Your task to perform on an android device: Open display settings Image 0: 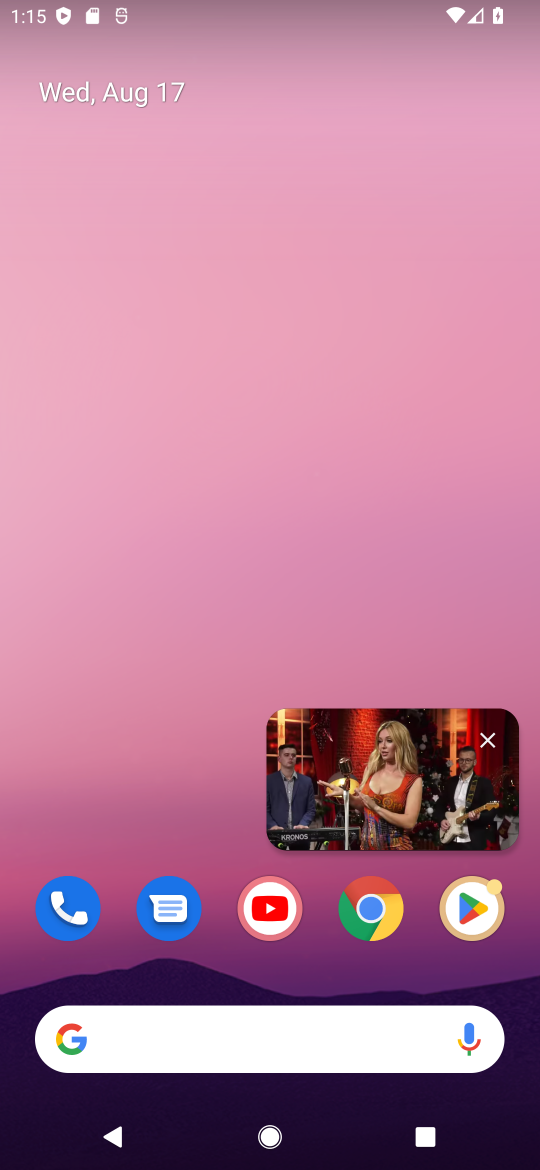
Step 0: click (483, 756)
Your task to perform on an android device: Open display settings Image 1: 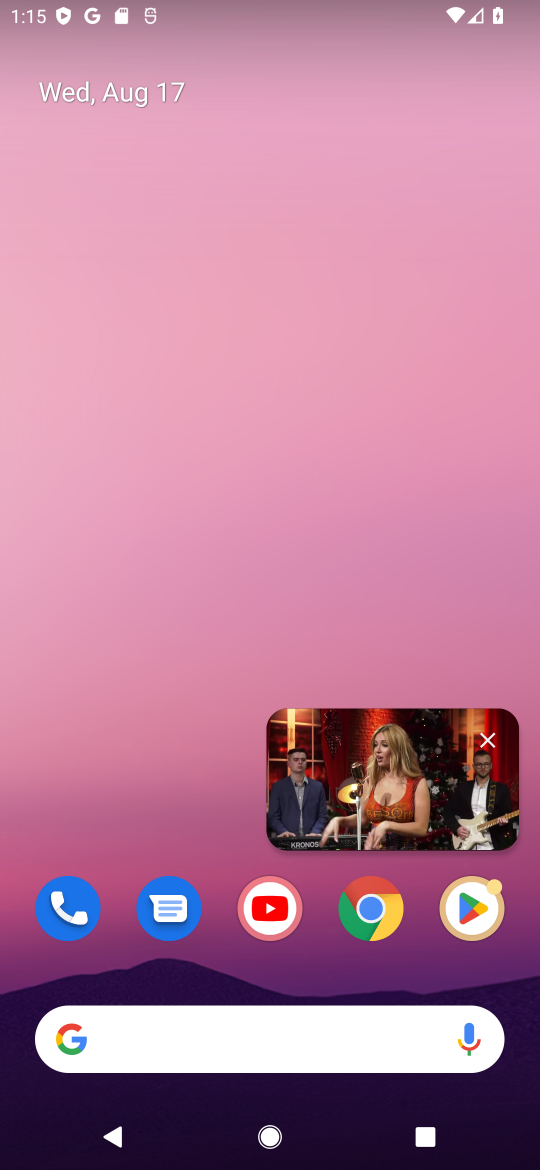
Step 1: click (483, 751)
Your task to perform on an android device: Open display settings Image 2: 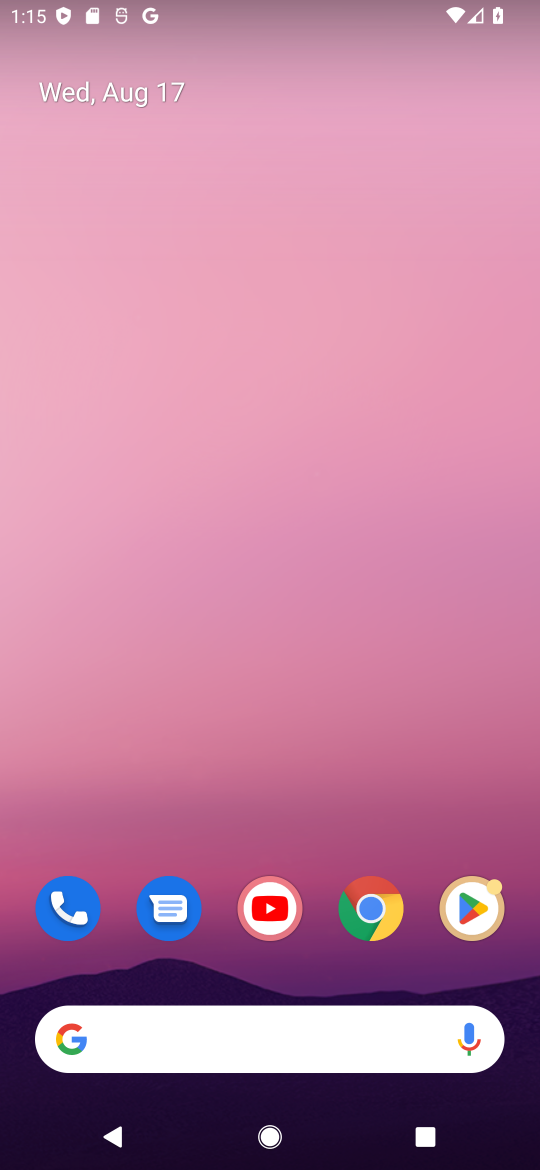
Step 2: drag from (315, 836) to (333, 125)
Your task to perform on an android device: Open display settings Image 3: 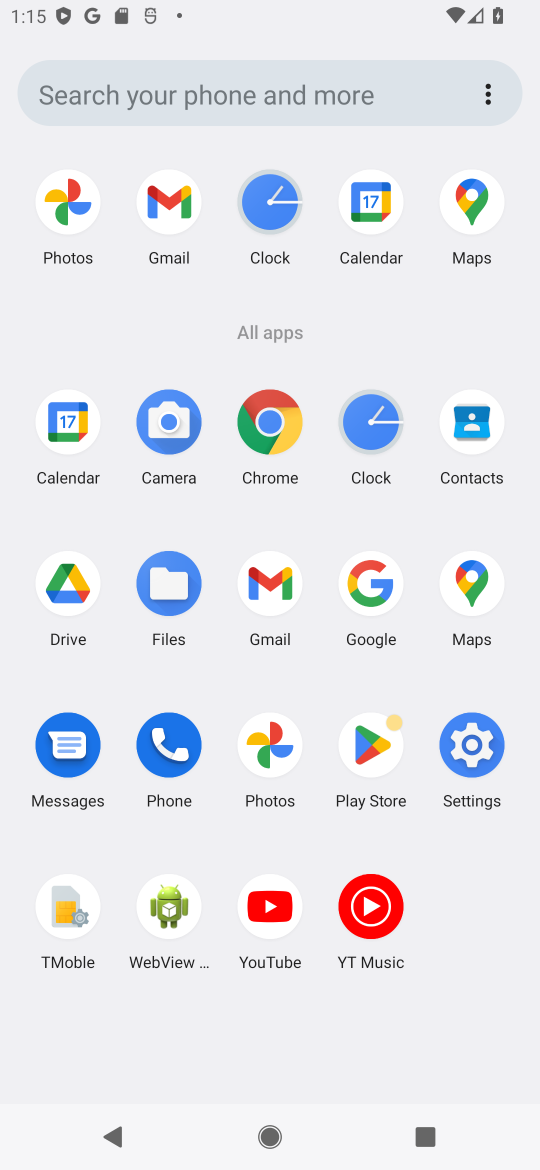
Step 3: click (470, 746)
Your task to perform on an android device: Open display settings Image 4: 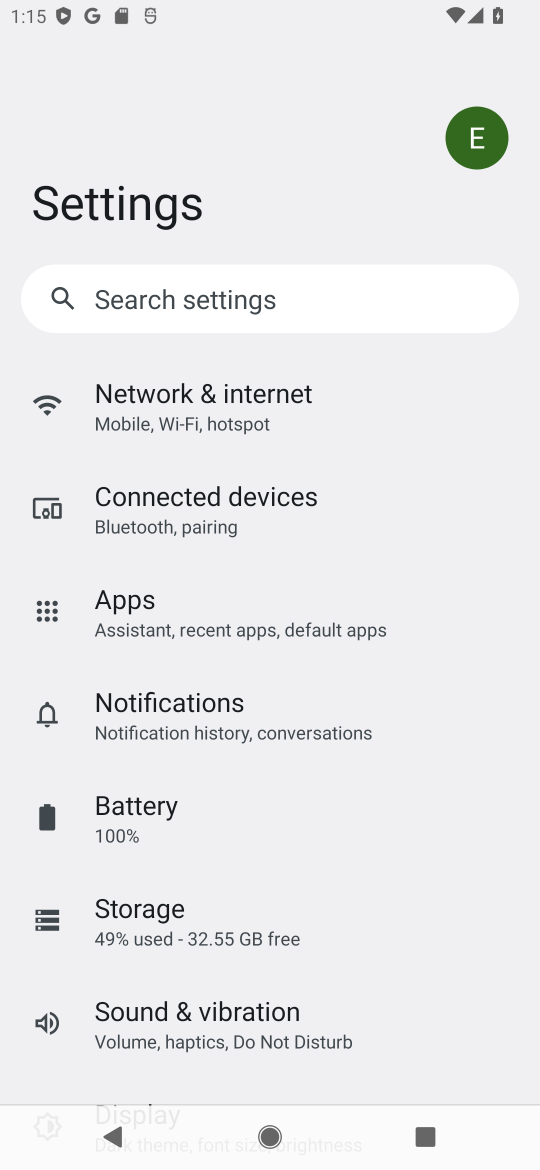
Step 4: drag from (412, 975) to (488, 137)
Your task to perform on an android device: Open display settings Image 5: 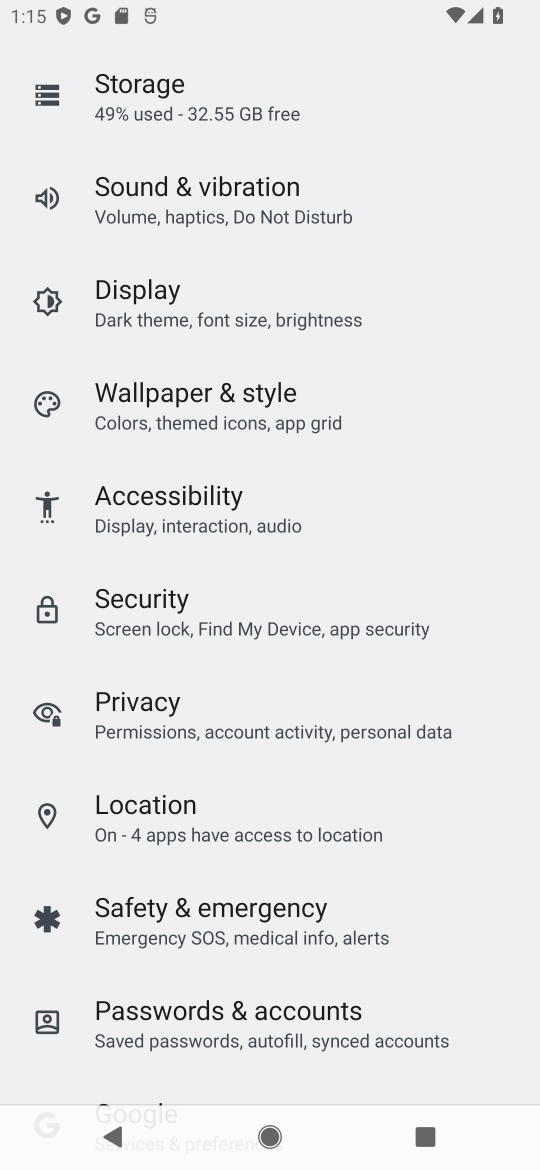
Step 5: click (130, 315)
Your task to perform on an android device: Open display settings Image 6: 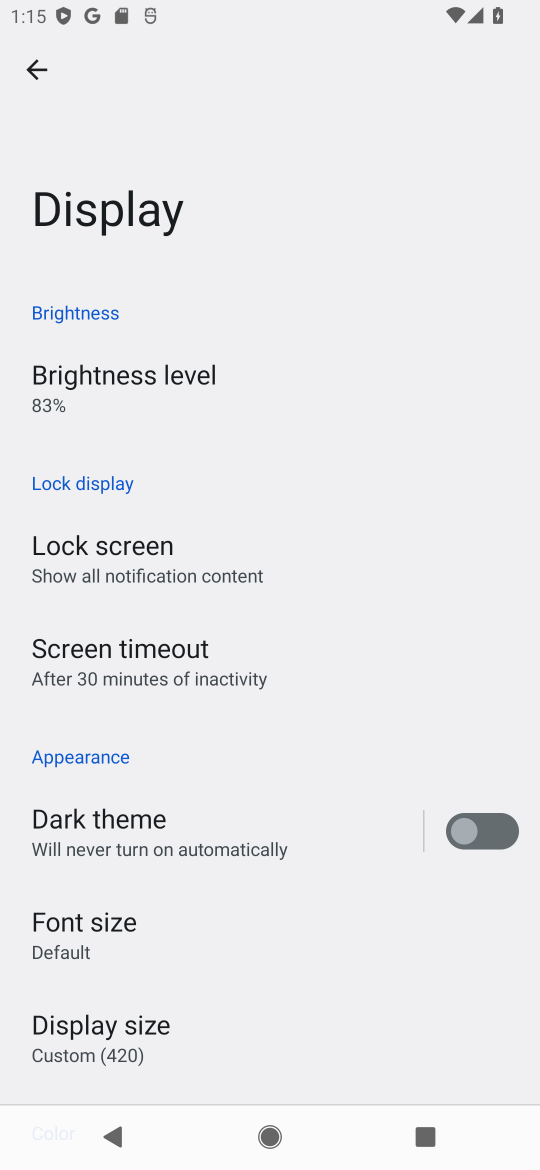
Step 6: task complete